Your task to perform on an android device: add a contact Image 0: 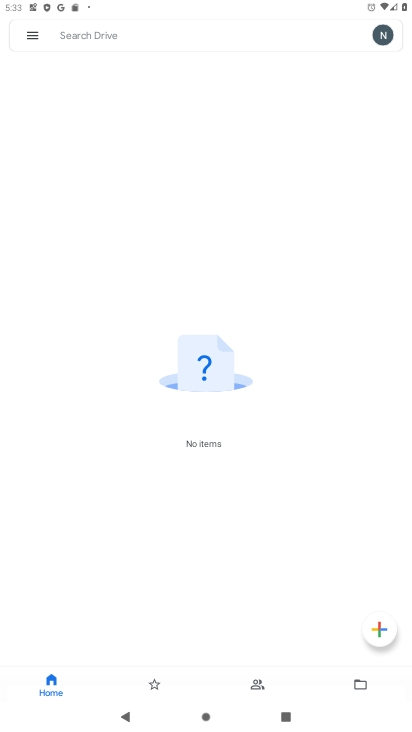
Step 0: press home button
Your task to perform on an android device: add a contact Image 1: 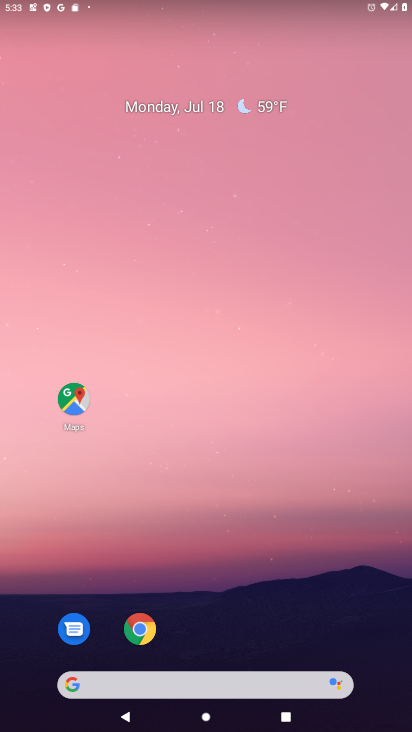
Step 1: drag from (308, 632) to (236, 150)
Your task to perform on an android device: add a contact Image 2: 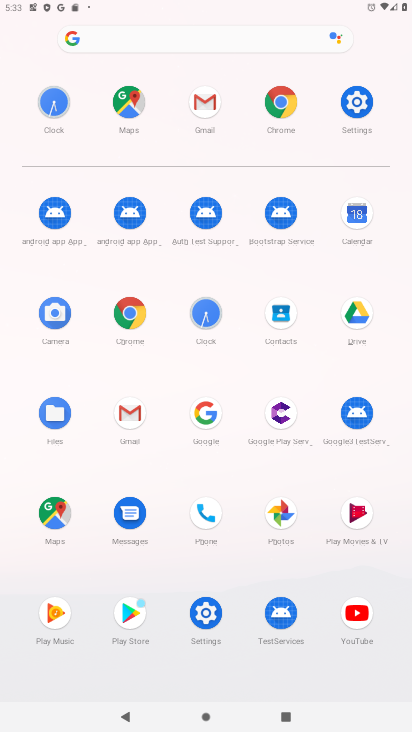
Step 2: click (285, 317)
Your task to perform on an android device: add a contact Image 3: 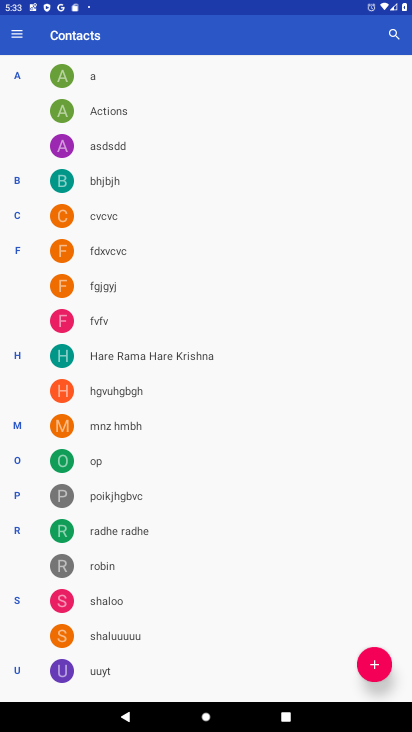
Step 3: click (374, 661)
Your task to perform on an android device: add a contact Image 4: 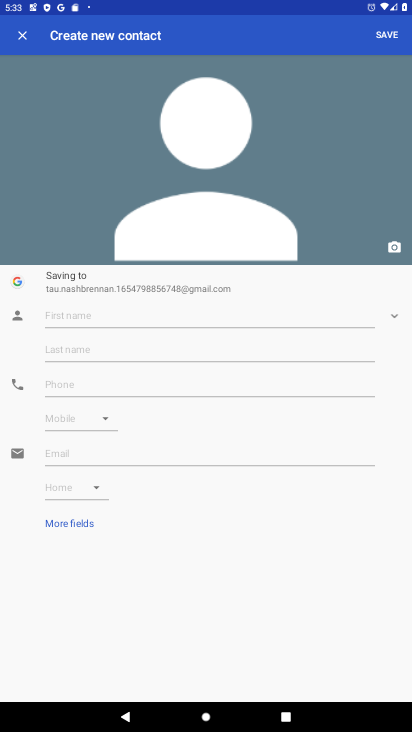
Step 4: click (235, 320)
Your task to perform on an android device: add a contact Image 5: 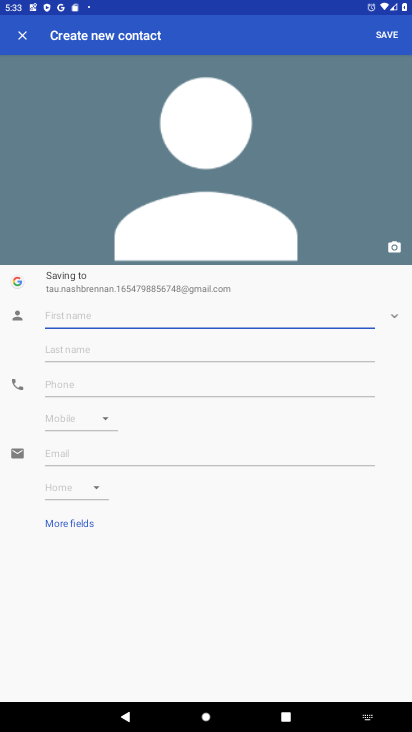
Step 5: type "ajnabi"
Your task to perform on an android device: add a contact Image 6: 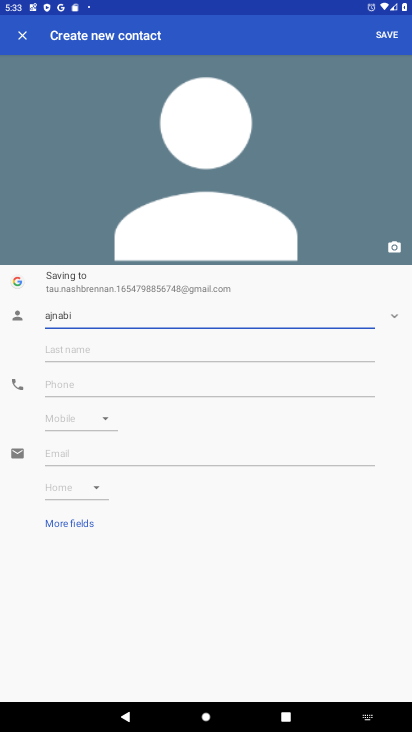
Step 6: click (388, 37)
Your task to perform on an android device: add a contact Image 7: 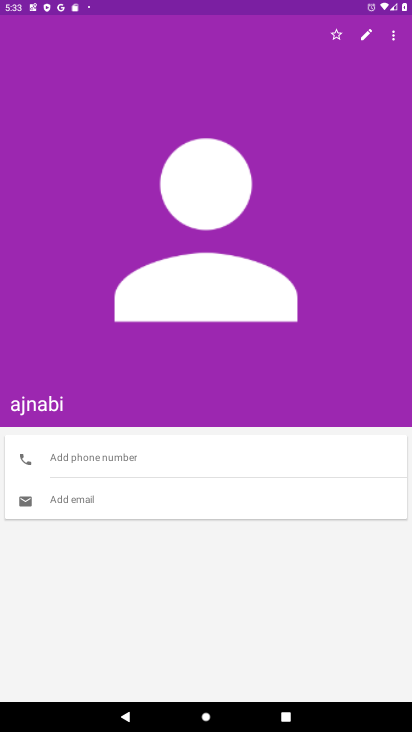
Step 7: task complete